Your task to perform on an android device: Open the calendar app, open the side menu, and click the "Day" option Image 0: 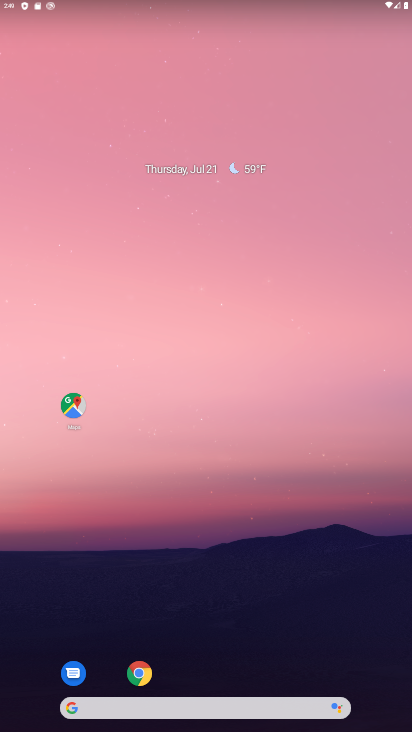
Step 0: drag from (382, 680) to (315, 28)
Your task to perform on an android device: Open the calendar app, open the side menu, and click the "Day" option Image 1: 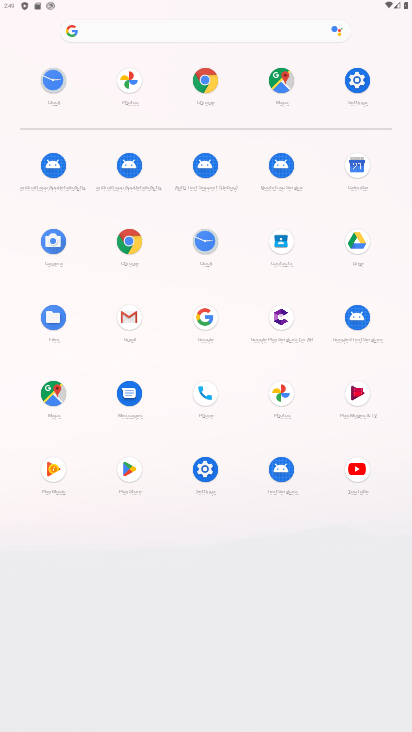
Step 1: click (355, 164)
Your task to perform on an android device: Open the calendar app, open the side menu, and click the "Day" option Image 2: 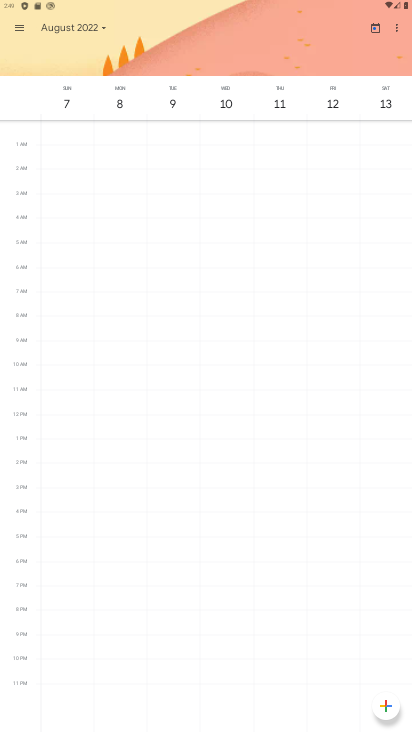
Step 2: click (13, 23)
Your task to perform on an android device: Open the calendar app, open the side menu, and click the "Day" option Image 3: 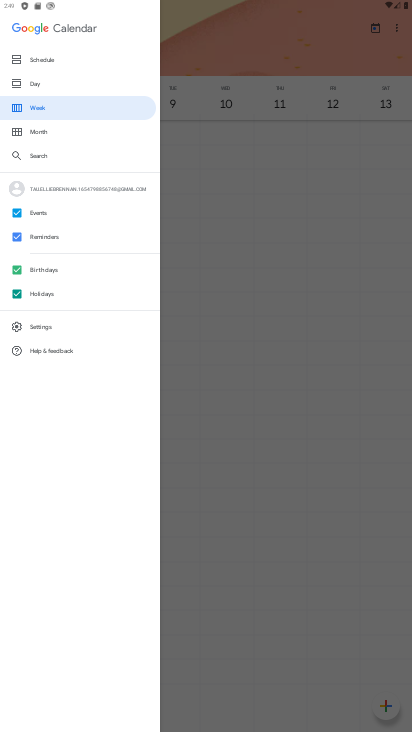
Step 3: click (30, 74)
Your task to perform on an android device: Open the calendar app, open the side menu, and click the "Day" option Image 4: 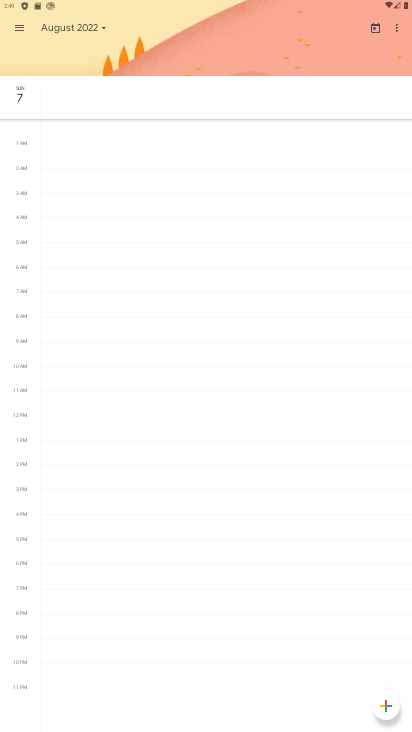
Step 4: task complete